Your task to perform on an android device: Search for vegetarian restaurants on Maps Image 0: 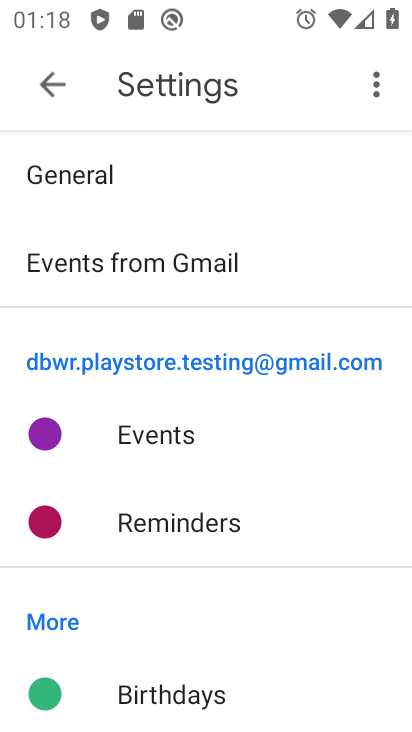
Step 0: press home button
Your task to perform on an android device: Search for vegetarian restaurants on Maps Image 1: 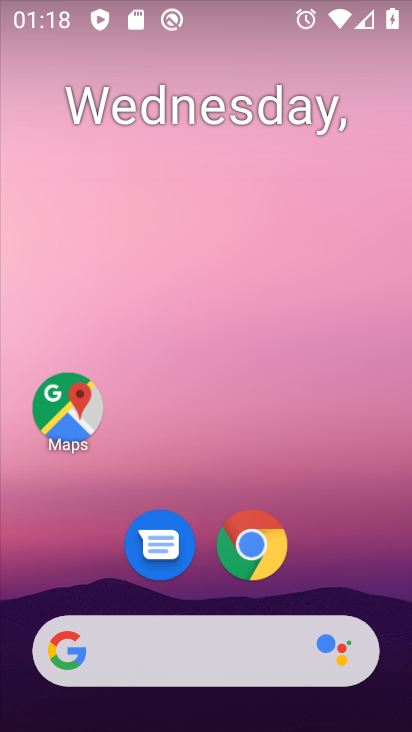
Step 1: click (61, 413)
Your task to perform on an android device: Search for vegetarian restaurants on Maps Image 2: 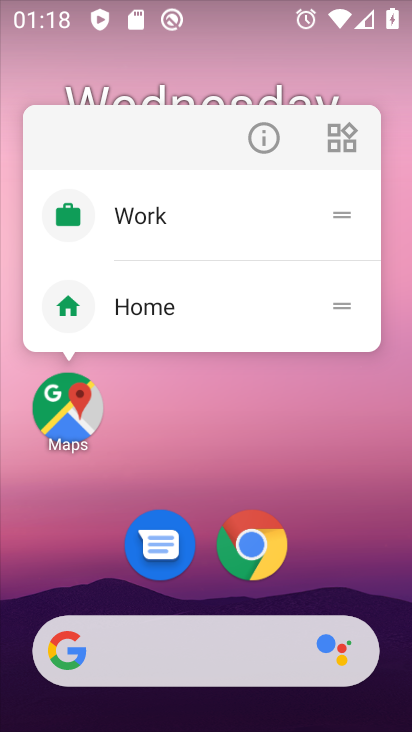
Step 2: click (62, 412)
Your task to perform on an android device: Search for vegetarian restaurants on Maps Image 3: 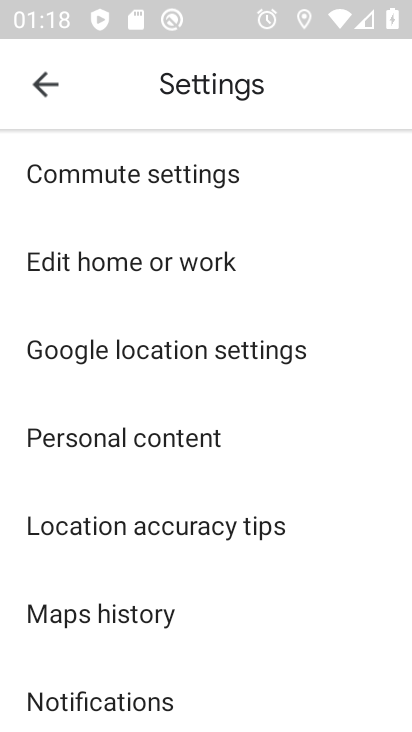
Step 3: click (57, 103)
Your task to perform on an android device: Search for vegetarian restaurants on Maps Image 4: 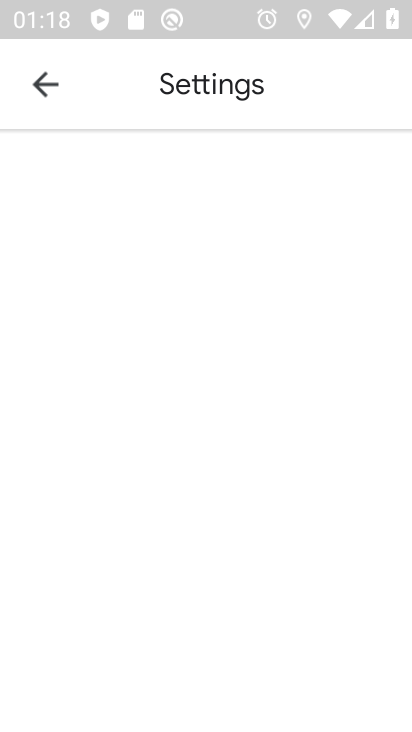
Step 4: click (57, 93)
Your task to perform on an android device: Search for vegetarian restaurants on Maps Image 5: 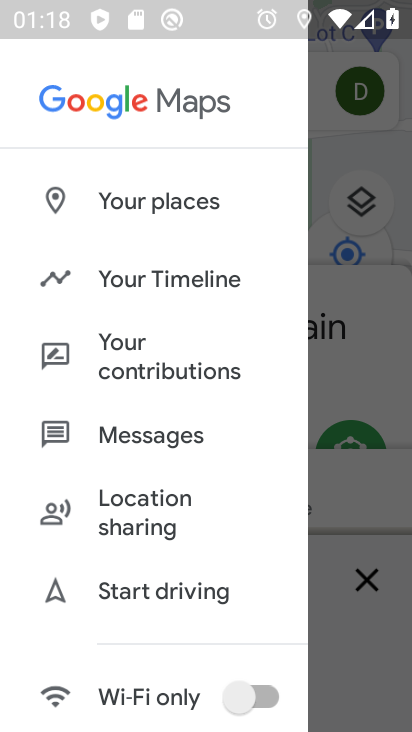
Step 5: click (340, 144)
Your task to perform on an android device: Search for vegetarian restaurants on Maps Image 6: 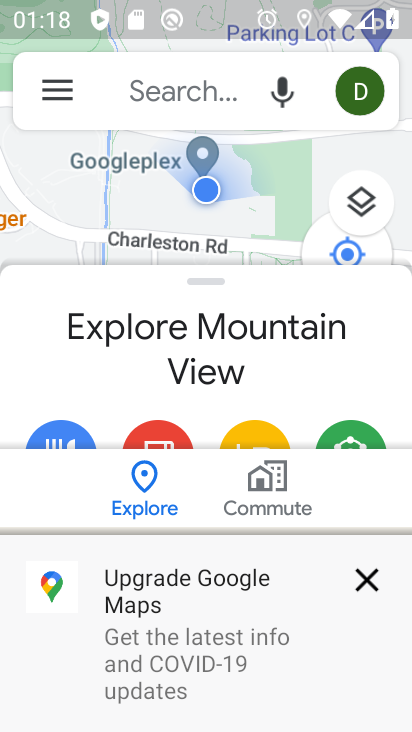
Step 6: click (197, 87)
Your task to perform on an android device: Search for vegetarian restaurants on Maps Image 7: 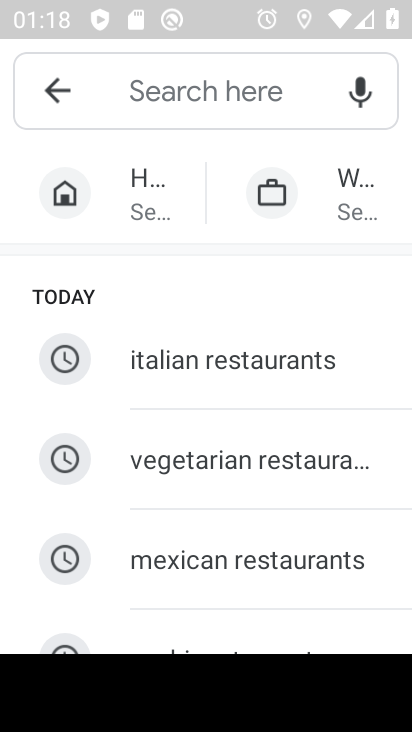
Step 7: click (293, 458)
Your task to perform on an android device: Search for vegetarian restaurants on Maps Image 8: 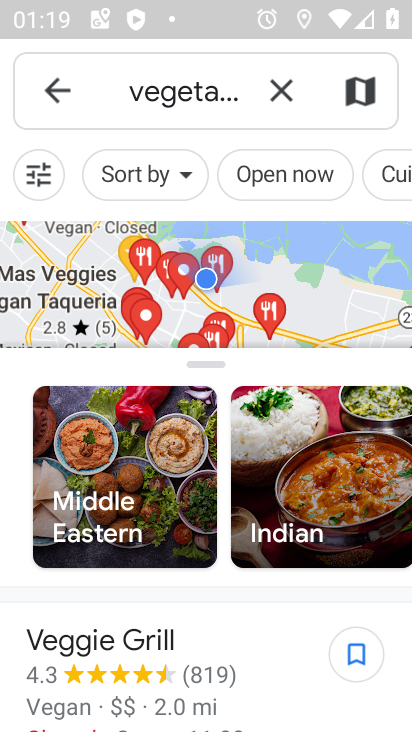
Step 8: task complete